Your task to perform on an android device: choose inbox layout in the gmail app Image 0: 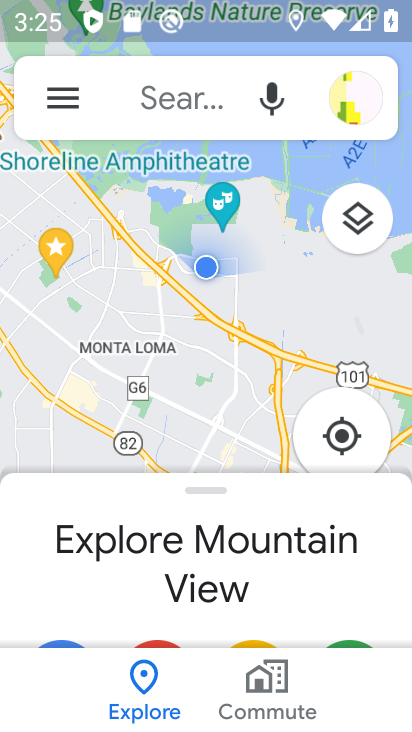
Step 0: press home button
Your task to perform on an android device: choose inbox layout in the gmail app Image 1: 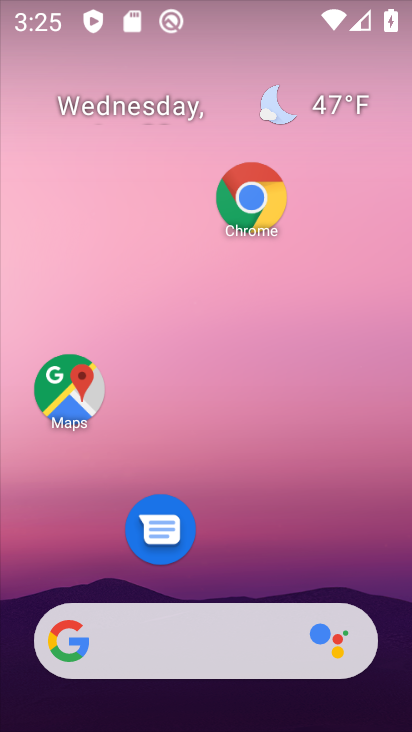
Step 1: drag from (242, 522) to (222, 9)
Your task to perform on an android device: choose inbox layout in the gmail app Image 2: 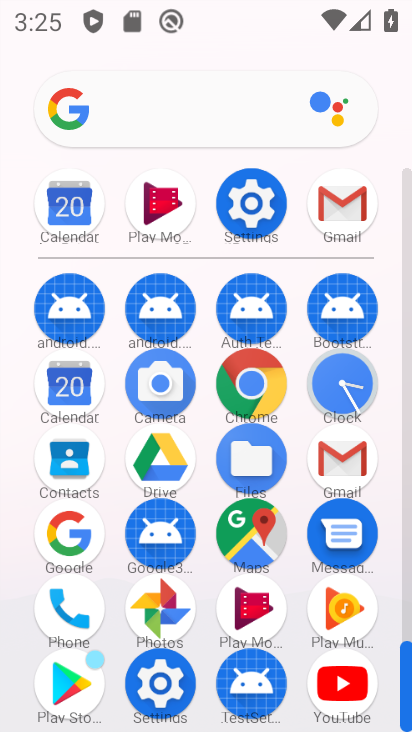
Step 2: click (337, 457)
Your task to perform on an android device: choose inbox layout in the gmail app Image 3: 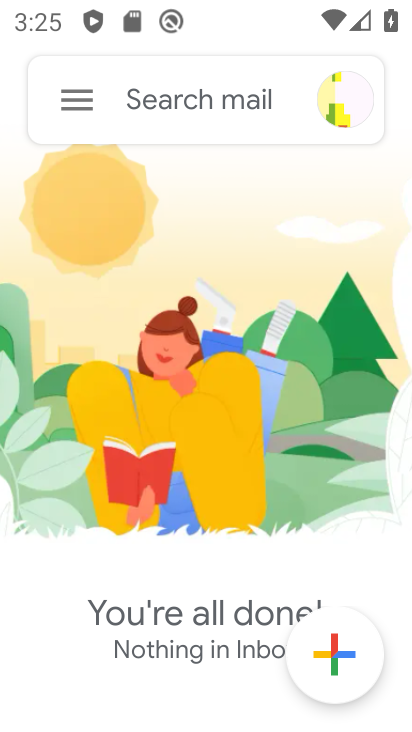
Step 3: click (69, 100)
Your task to perform on an android device: choose inbox layout in the gmail app Image 4: 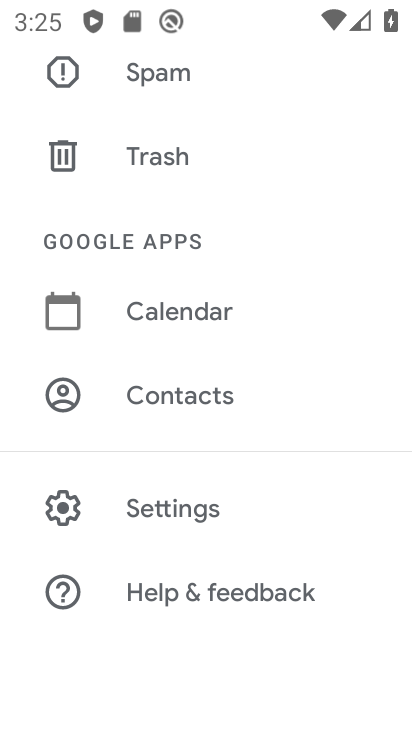
Step 4: click (176, 508)
Your task to perform on an android device: choose inbox layout in the gmail app Image 5: 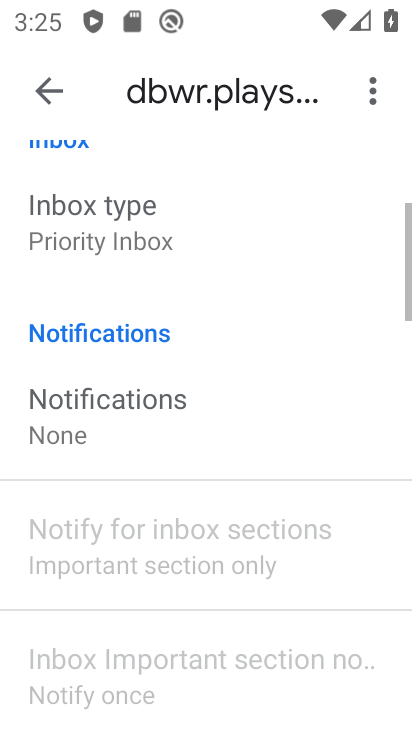
Step 5: click (168, 209)
Your task to perform on an android device: choose inbox layout in the gmail app Image 6: 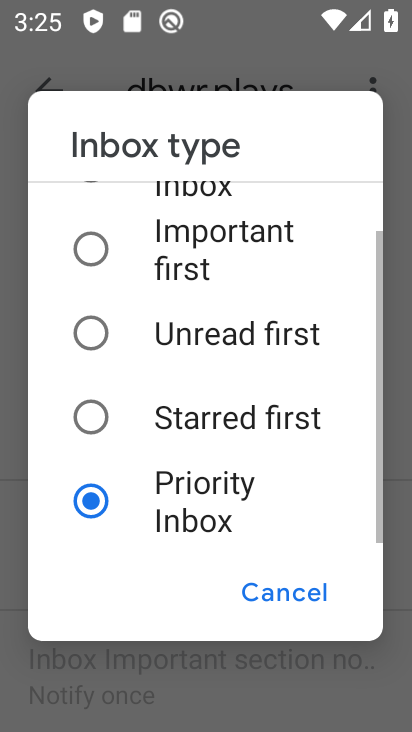
Step 6: click (172, 251)
Your task to perform on an android device: choose inbox layout in the gmail app Image 7: 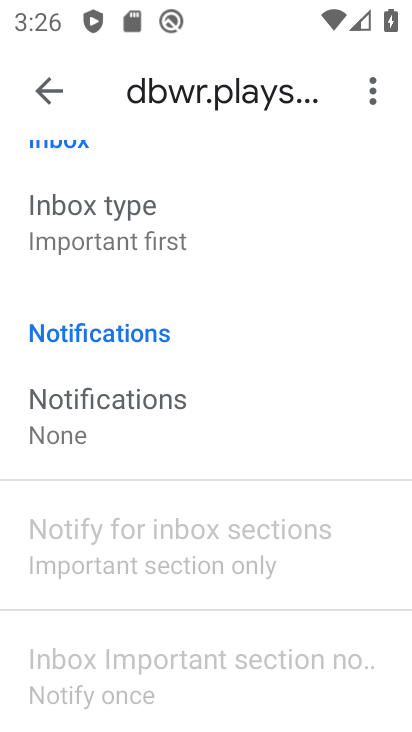
Step 7: task complete